Your task to perform on an android device: Search for sushi restaurants on Maps Image 0: 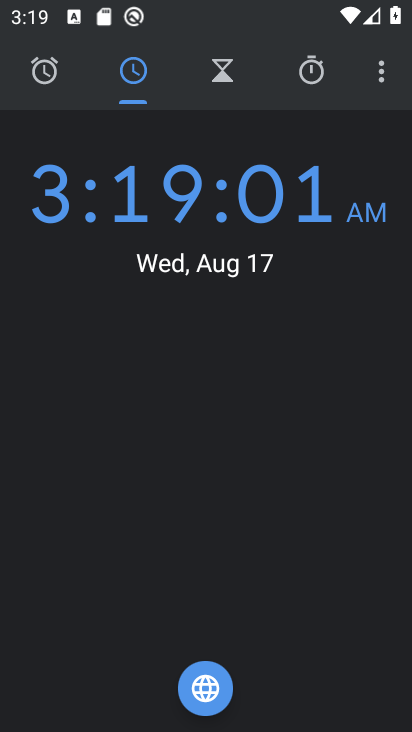
Step 0: press home button
Your task to perform on an android device: Search for sushi restaurants on Maps Image 1: 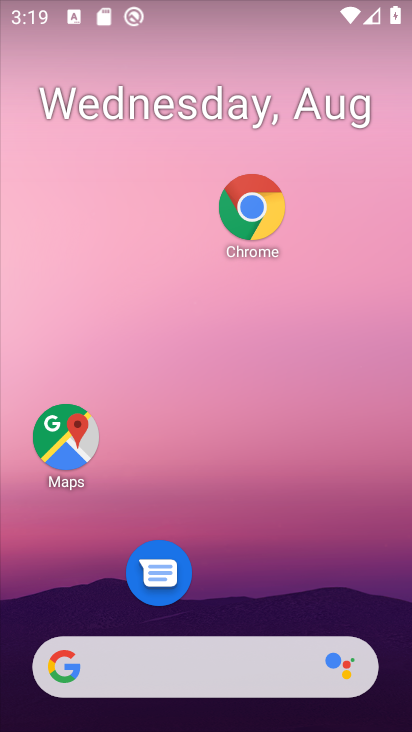
Step 1: click (66, 436)
Your task to perform on an android device: Search for sushi restaurants on Maps Image 2: 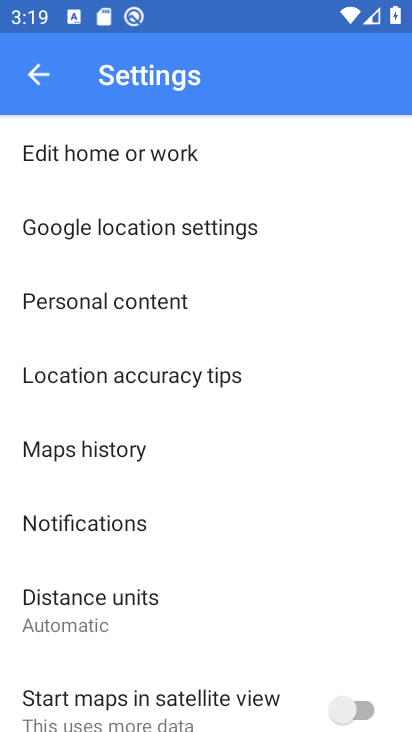
Step 2: click (39, 75)
Your task to perform on an android device: Search for sushi restaurants on Maps Image 3: 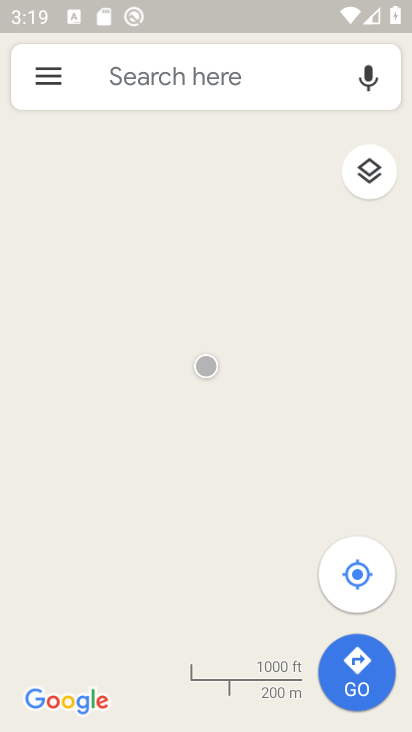
Step 3: click (141, 80)
Your task to perform on an android device: Search for sushi restaurants on Maps Image 4: 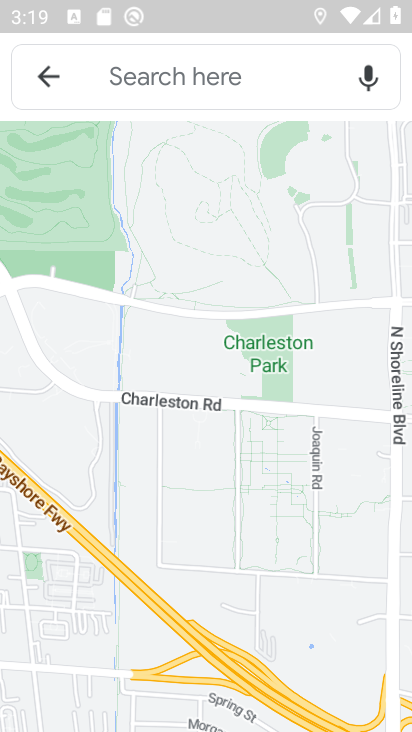
Step 4: click (144, 75)
Your task to perform on an android device: Search for sushi restaurants on Maps Image 5: 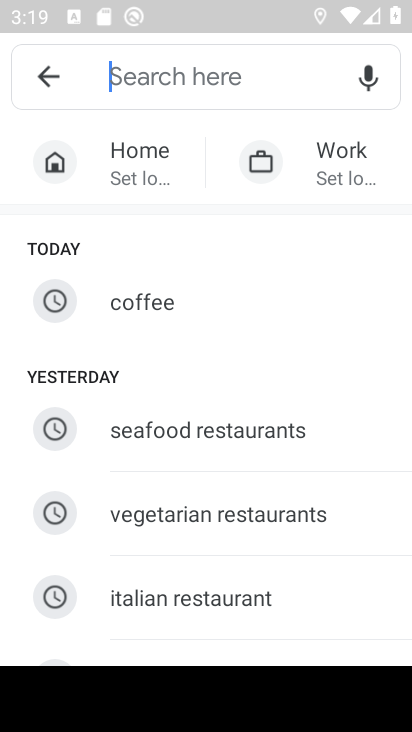
Step 5: drag from (210, 533) to (210, 147)
Your task to perform on an android device: Search for sushi restaurants on Maps Image 6: 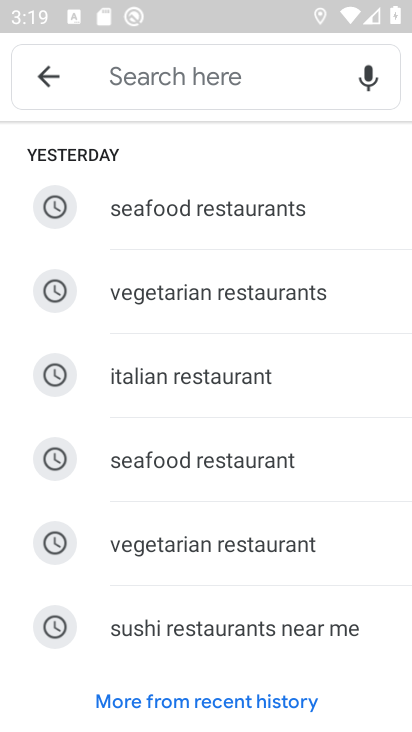
Step 6: click (217, 632)
Your task to perform on an android device: Search for sushi restaurants on Maps Image 7: 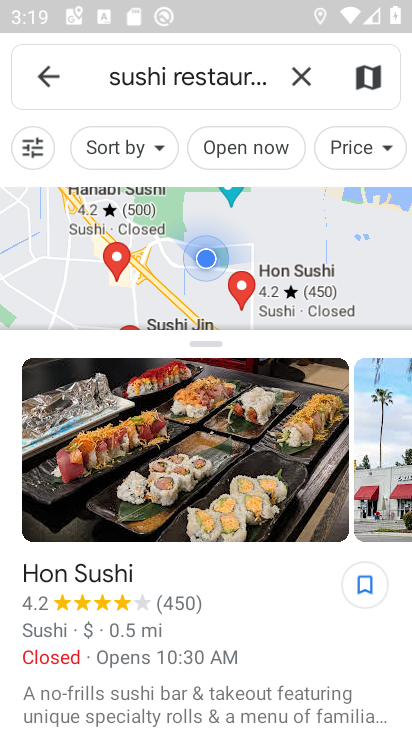
Step 7: task complete